Your task to perform on an android device: Go to notification settings Image 0: 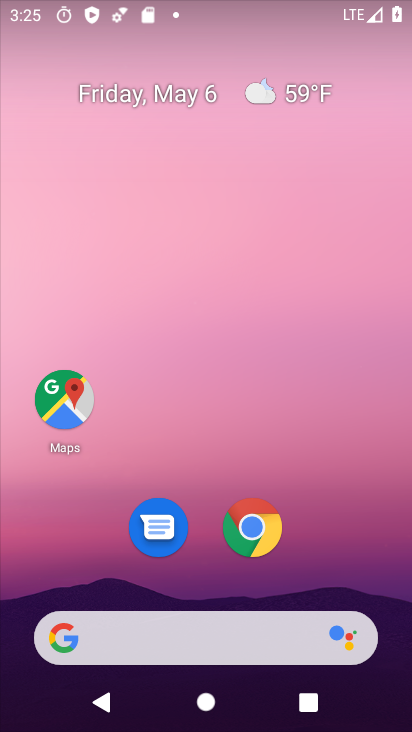
Step 0: drag from (348, 527) to (368, 278)
Your task to perform on an android device: Go to notification settings Image 1: 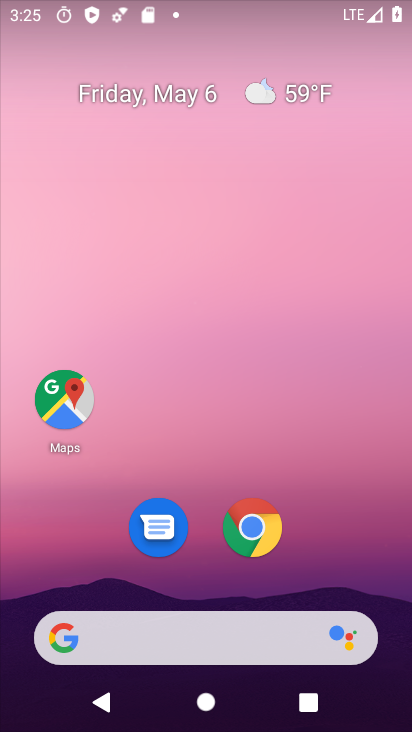
Step 1: drag from (231, 297) to (231, 124)
Your task to perform on an android device: Go to notification settings Image 2: 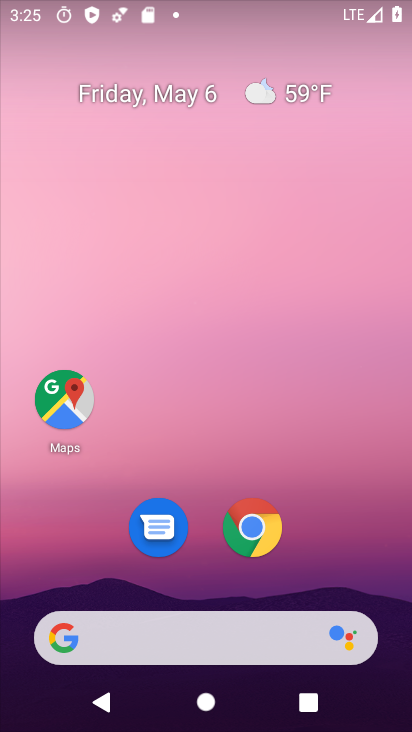
Step 2: drag from (303, 583) to (256, 98)
Your task to perform on an android device: Go to notification settings Image 3: 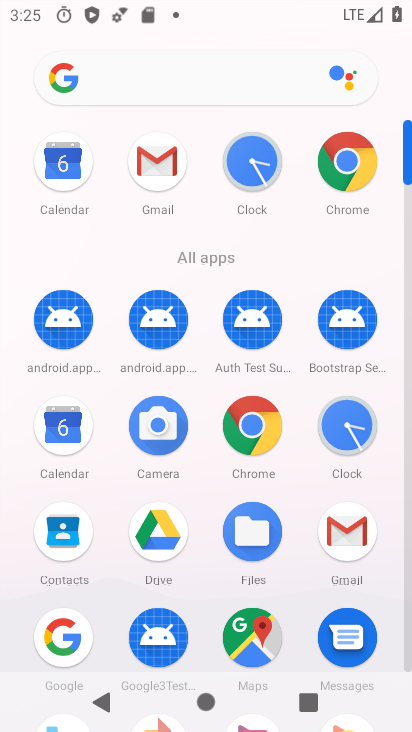
Step 3: drag from (311, 596) to (275, 236)
Your task to perform on an android device: Go to notification settings Image 4: 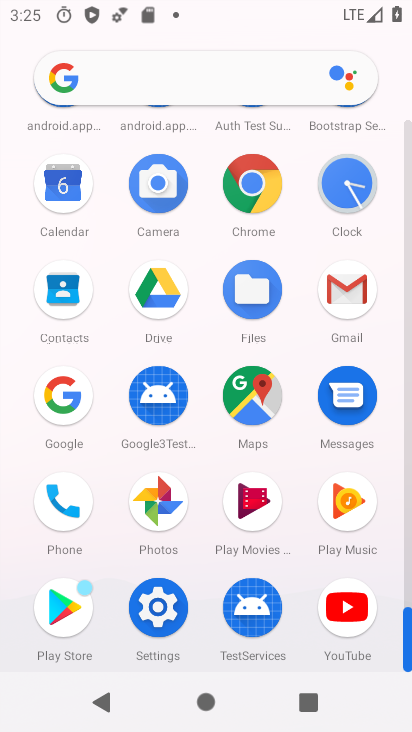
Step 4: click (141, 611)
Your task to perform on an android device: Go to notification settings Image 5: 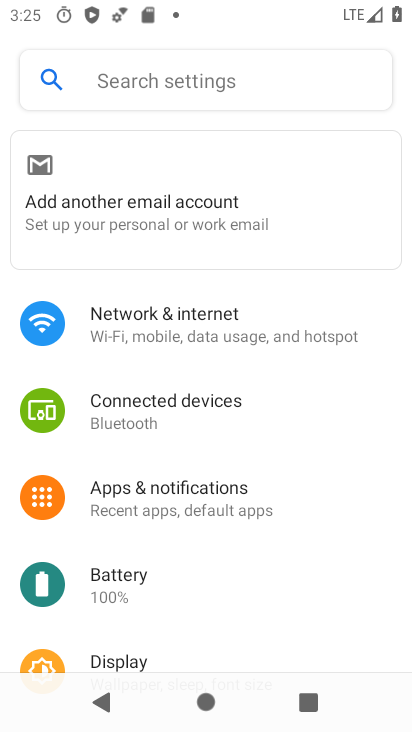
Step 5: click (197, 511)
Your task to perform on an android device: Go to notification settings Image 6: 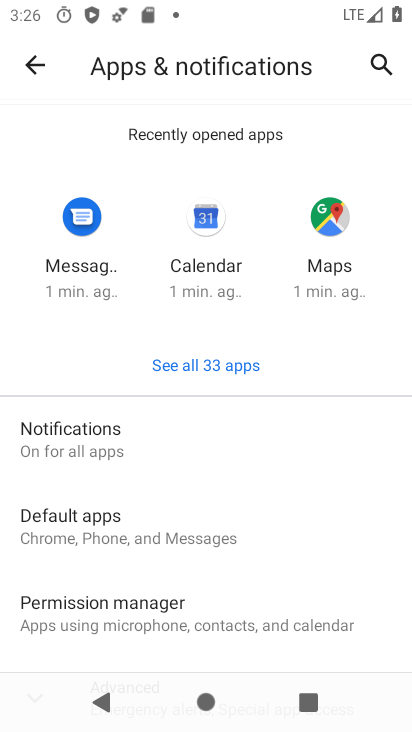
Step 6: click (89, 453)
Your task to perform on an android device: Go to notification settings Image 7: 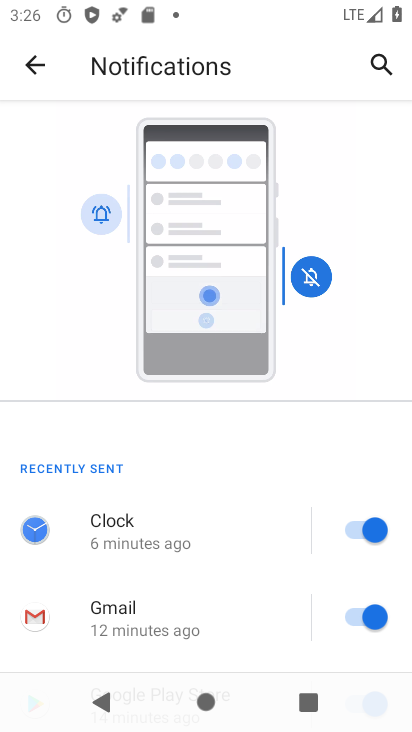
Step 7: task complete